Your task to perform on an android device: Turn off the flashlight Image 0: 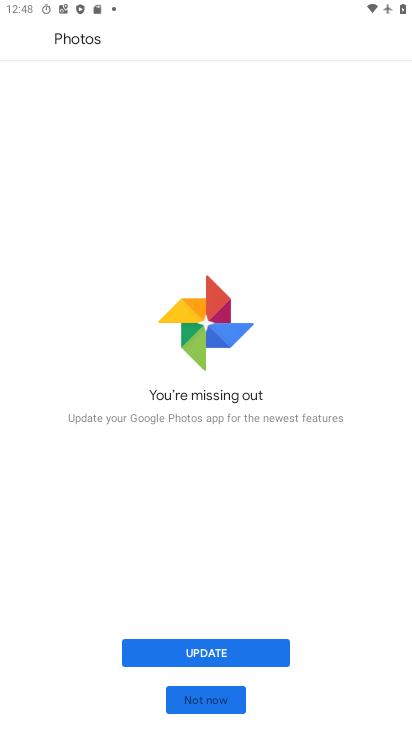
Step 0: press home button
Your task to perform on an android device: Turn off the flashlight Image 1: 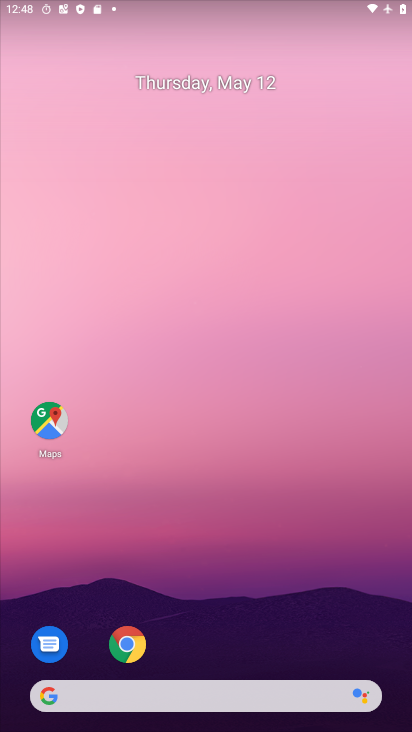
Step 1: task complete